Your task to perform on an android device: uninstall "Calculator" Image 0: 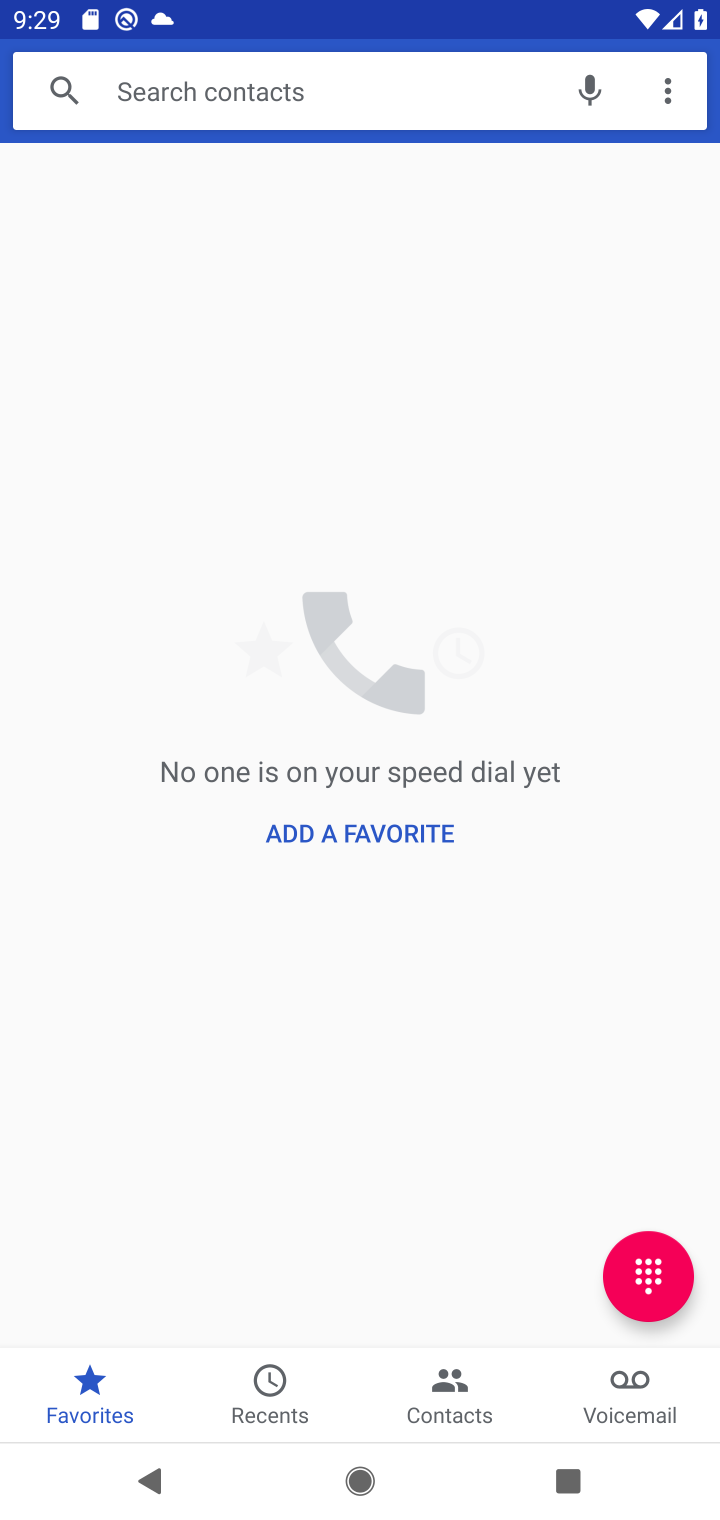
Step 0: press home button
Your task to perform on an android device: uninstall "Calculator" Image 1: 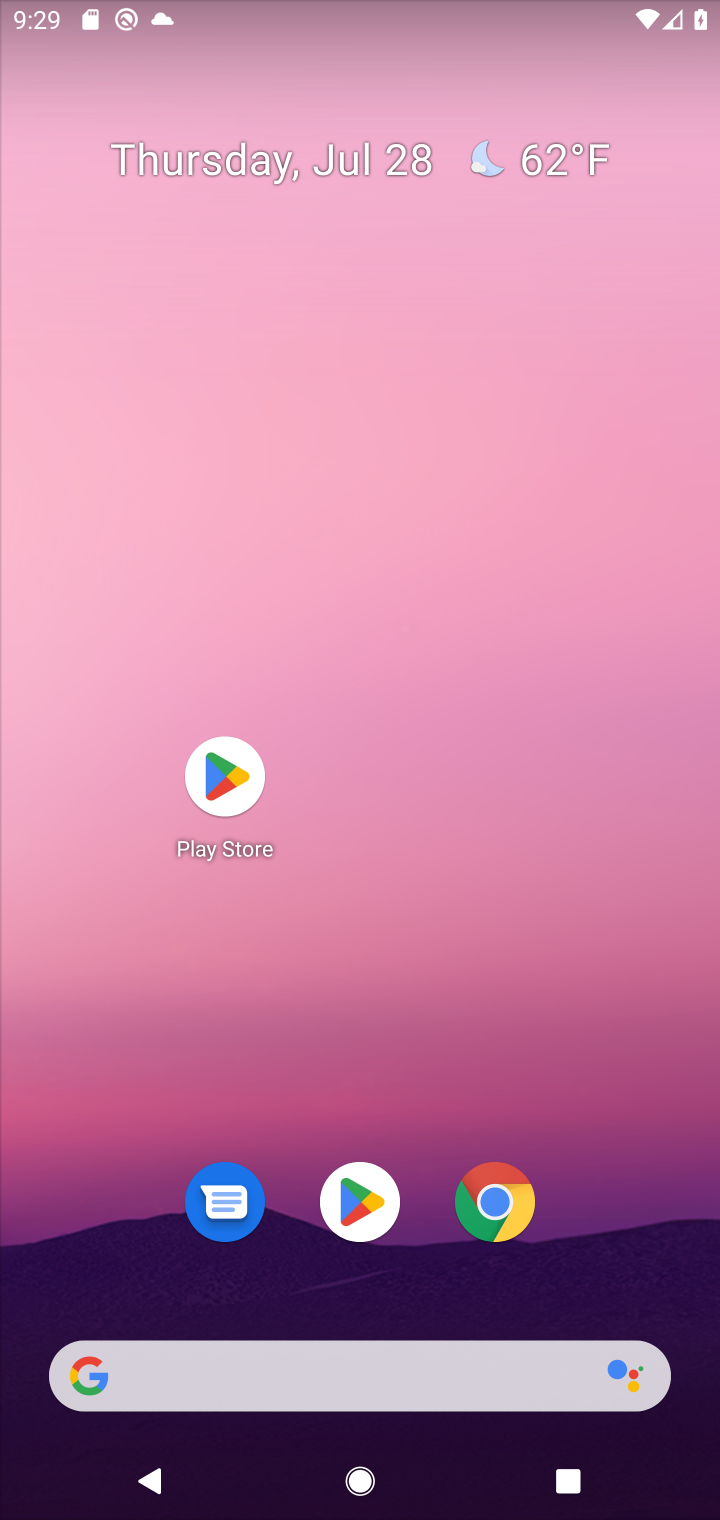
Step 1: click (360, 1193)
Your task to perform on an android device: uninstall "Calculator" Image 2: 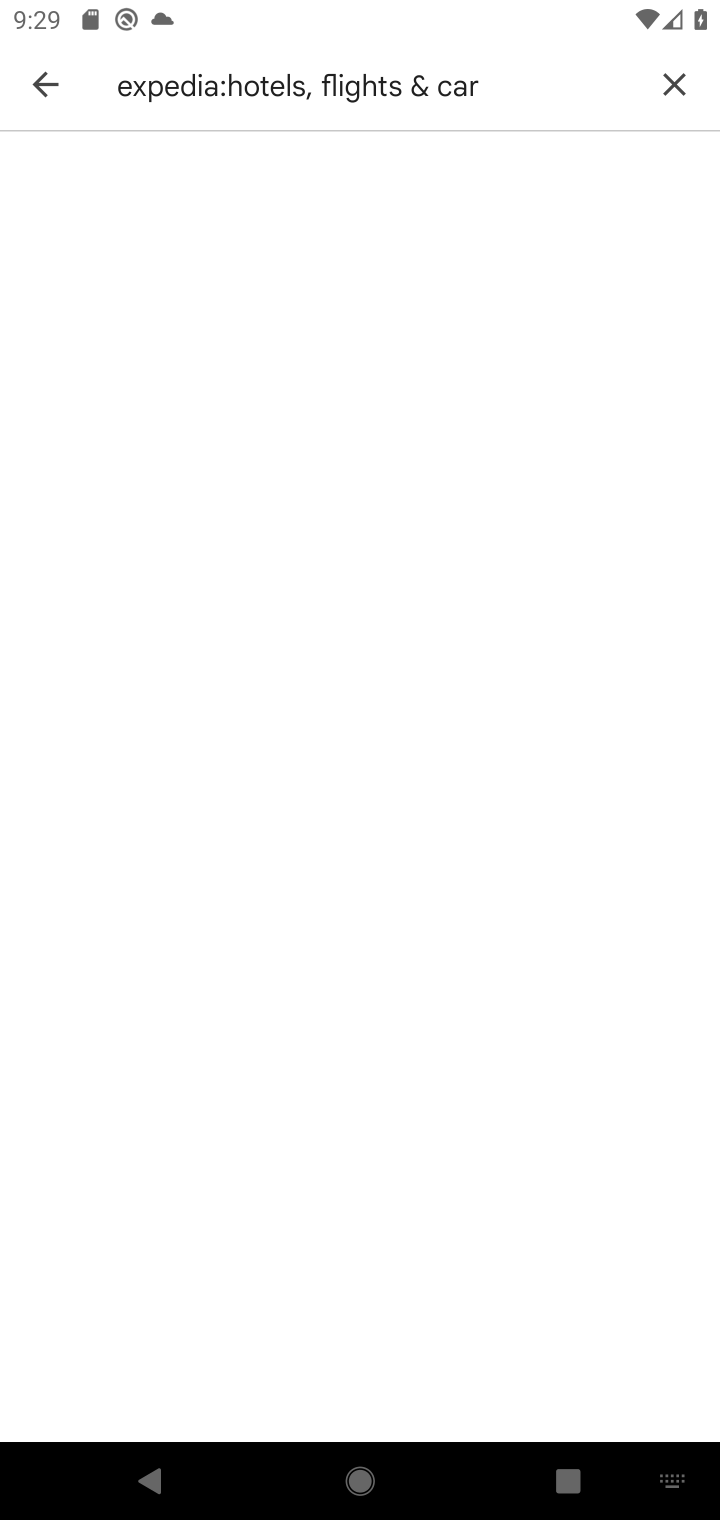
Step 2: click (664, 84)
Your task to perform on an android device: uninstall "Calculator" Image 3: 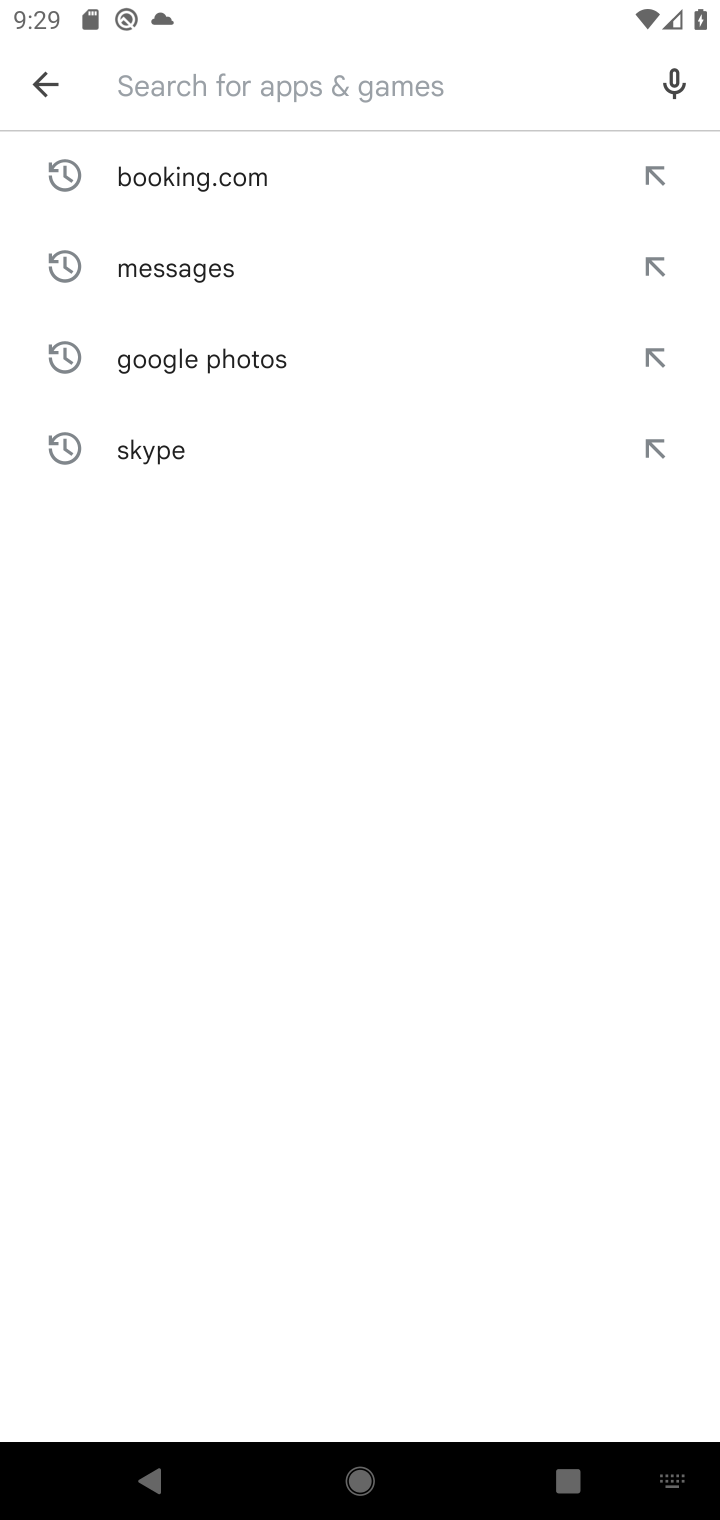
Step 3: type "calculator"
Your task to perform on an android device: uninstall "Calculator" Image 4: 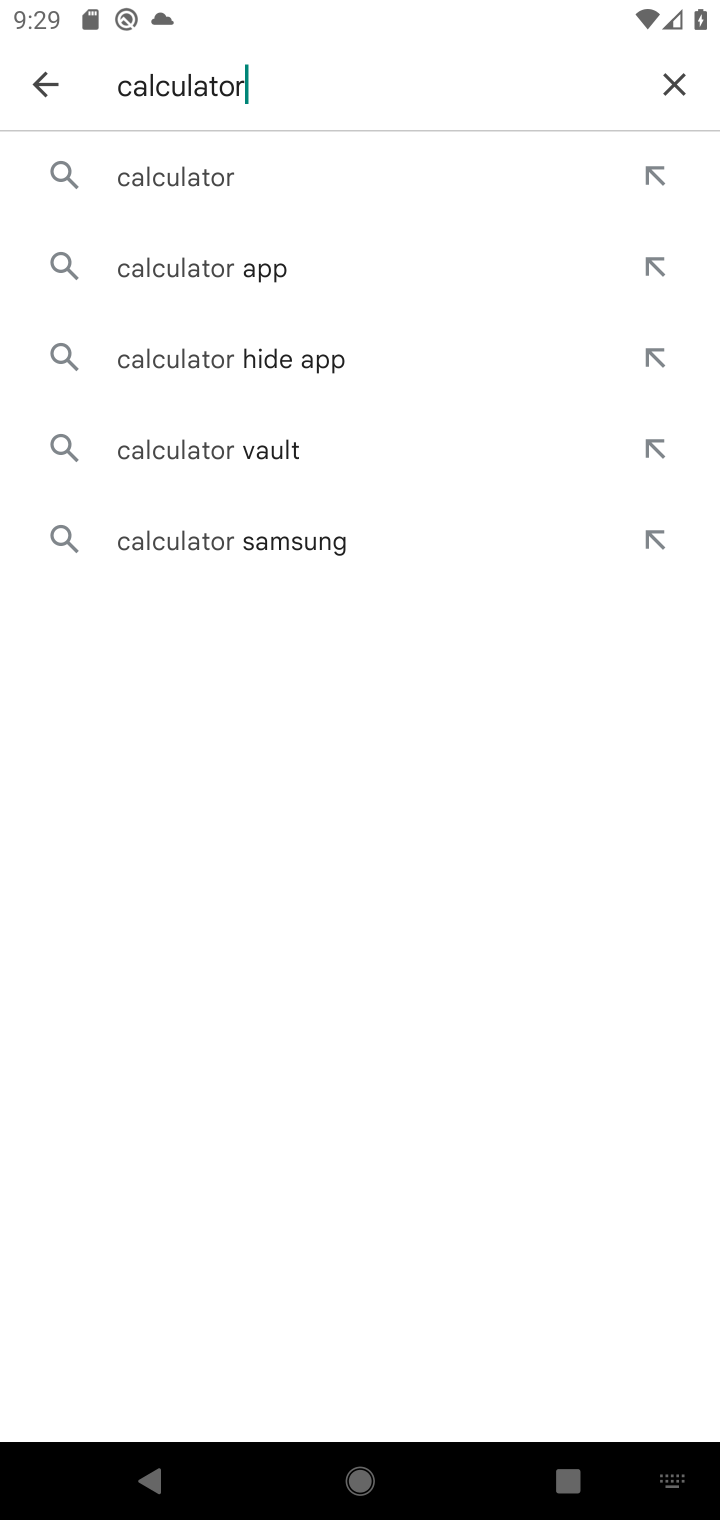
Step 4: click (206, 169)
Your task to perform on an android device: uninstall "Calculator" Image 5: 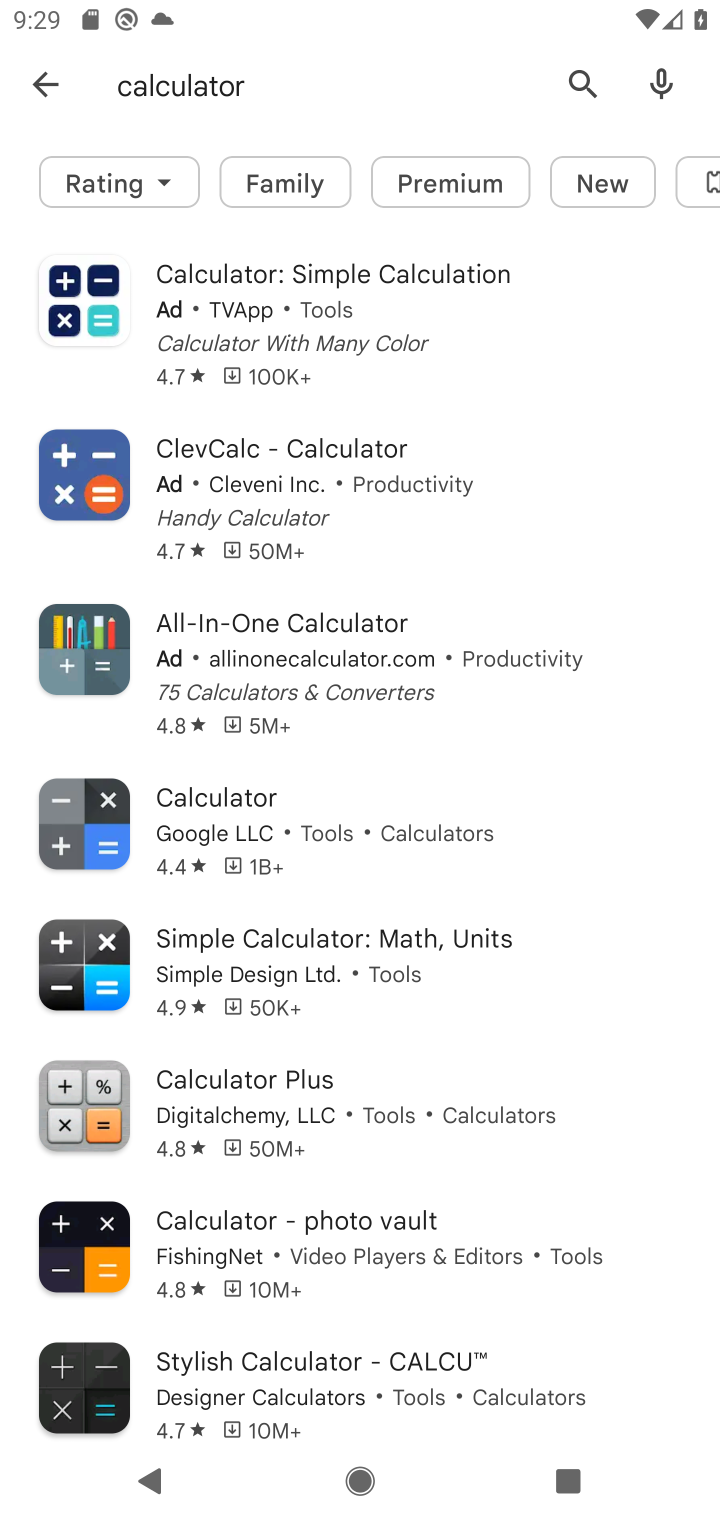
Step 5: click (289, 276)
Your task to perform on an android device: uninstall "Calculator" Image 6: 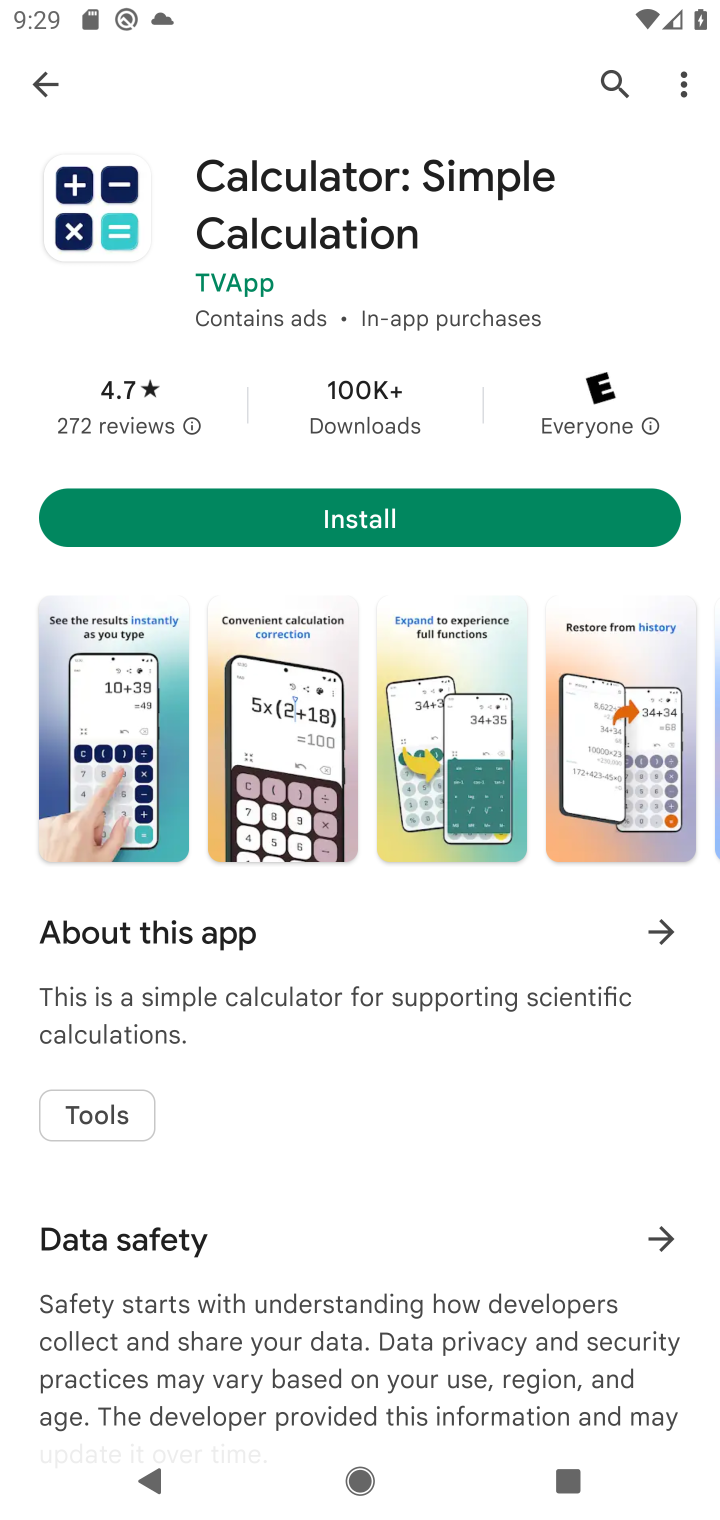
Step 6: task complete